Your task to perform on an android device: Search for sushi restaurants on Maps Image 0: 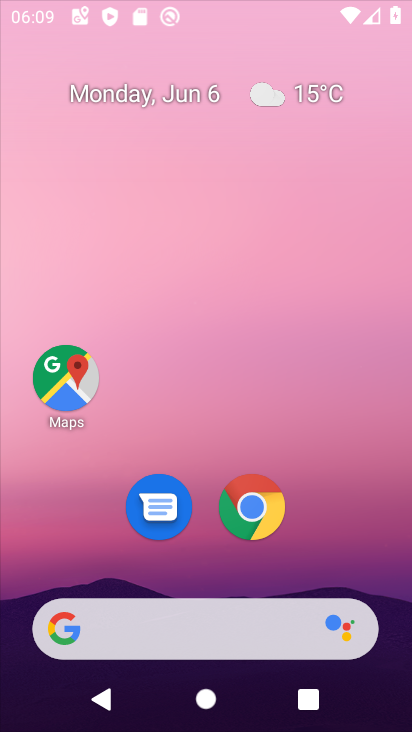
Step 0: click (266, 506)
Your task to perform on an android device: Search for sushi restaurants on Maps Image 1: 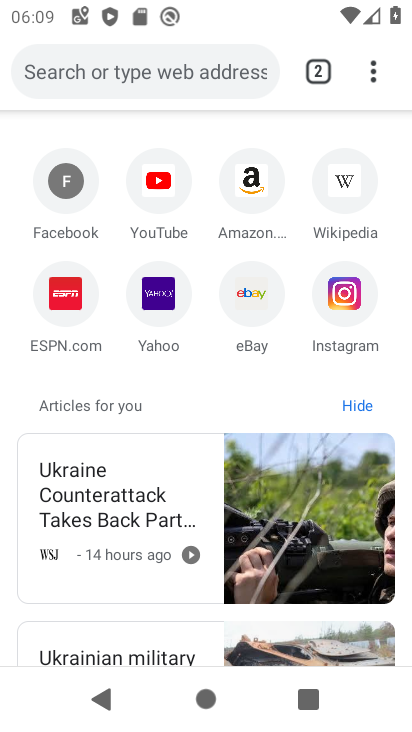
Step 1: press home button
Your task to perform on an android device: Search for sushi restaurants on Maps Image 2: 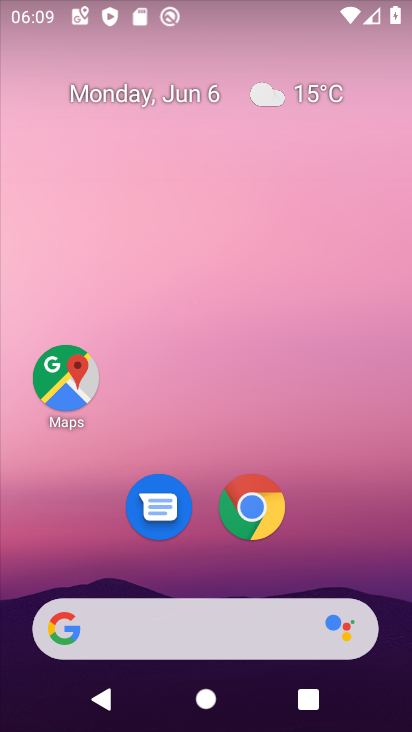
Step 2: click (62, 389)
Your task to perform on an android device: Search for sushi restaurants on Maps Image 3: 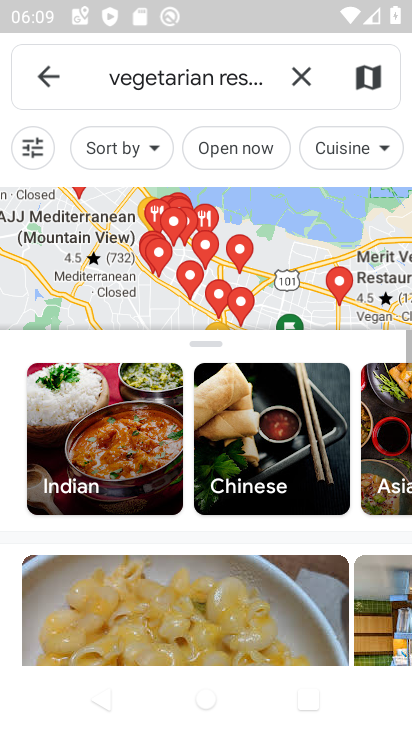
Step 3: click (330, 93)
Your task to perform on an android device: Search for sushi restaurants on Maps Image 4: 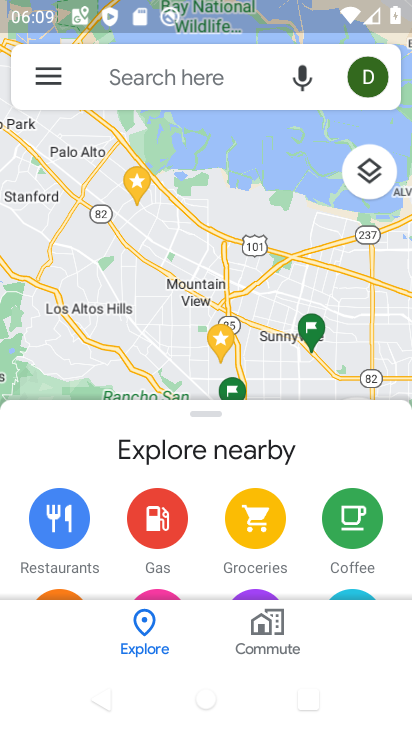
Step 4: click (166, 77)
Your task to perform on an android device: Search for sushi restaurants on Maps Image 5: 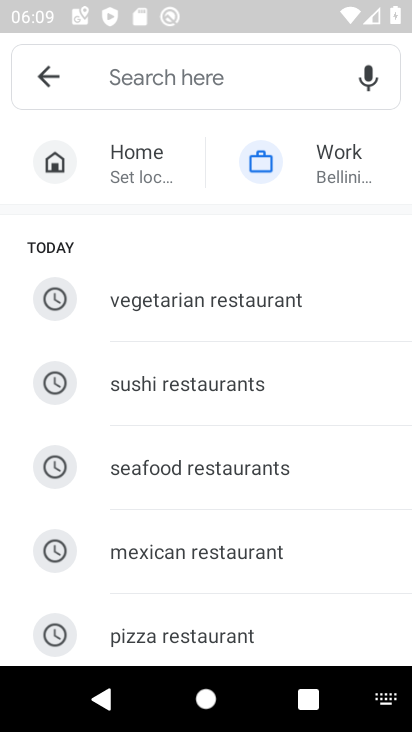
Step 5: click (167, 392)
Your task to perform on an android device: Search for sushi restaurants on Maps Image 6: 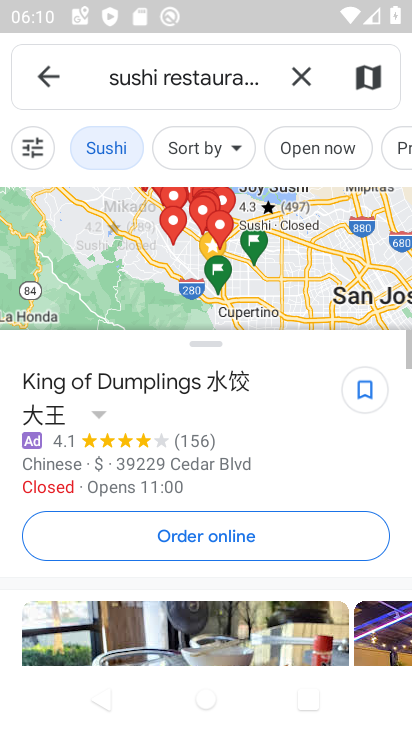
Step 6: task complete